Your task to perform on an android device: set an alarm Image 0: 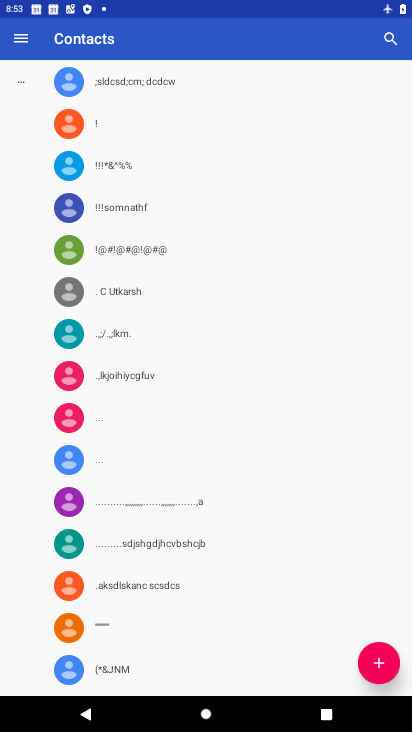
Step 0: press back button
Your task to perform on an android device: set an alarm Image 1: 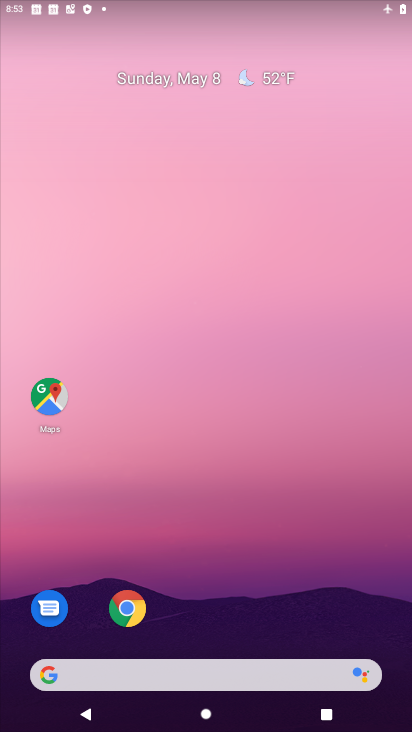
Step 1: drag from (275, 580) to (179, 2)
Your task to perform on an android device: set an alarm Image 2: 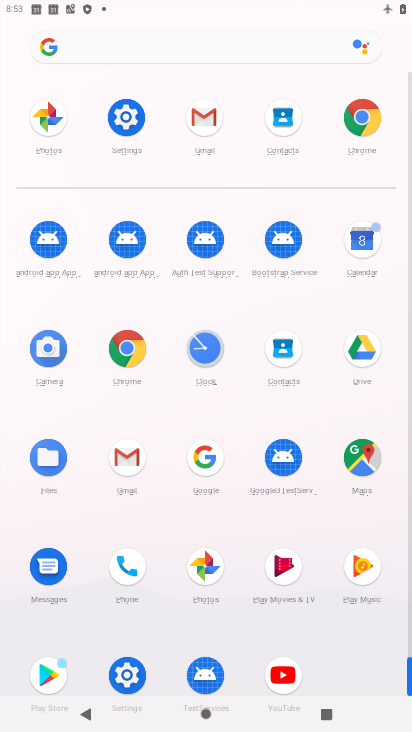
Step 2: drag from (19, 517) to (1, 205)
Your task to perform on an android device: set an alarm Image 3: 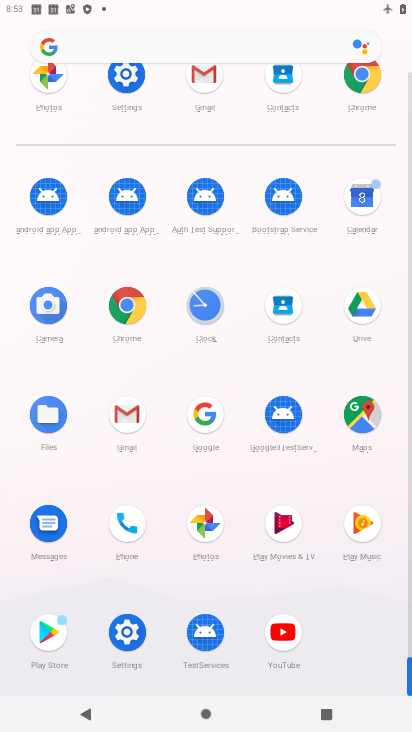
Step 3: drag from (16, 110) to (25, 147)
Your task to perform on an android device: set an alarm Image 4: 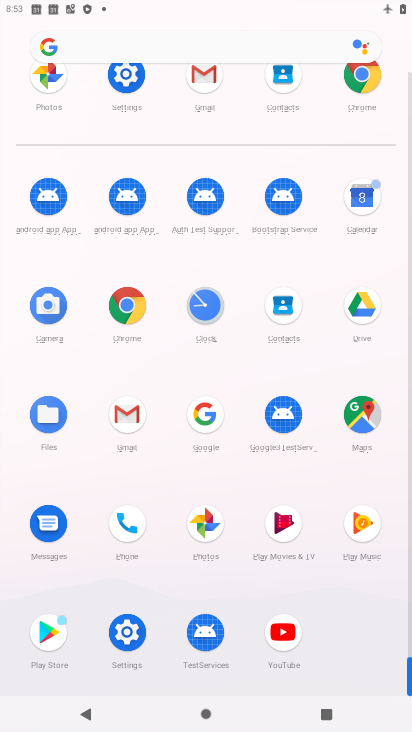
Step 4: drag from (0, 523) to (6, 246)
Your task to perform on an android device: set an alarm Image 5: 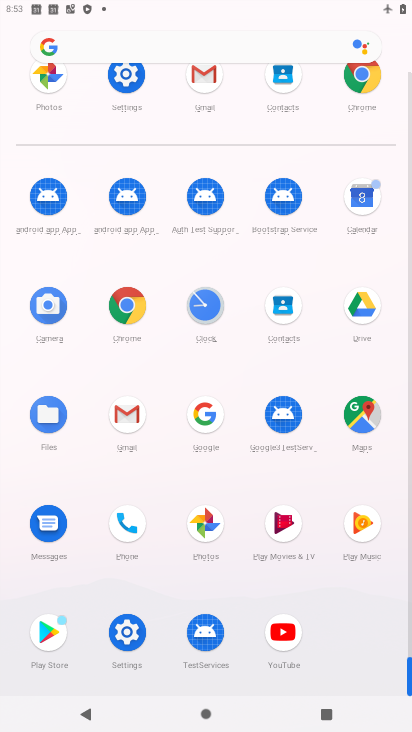
Step 5: click (206, 300)
Your task to perform on an android device: set an alarm Image 6: 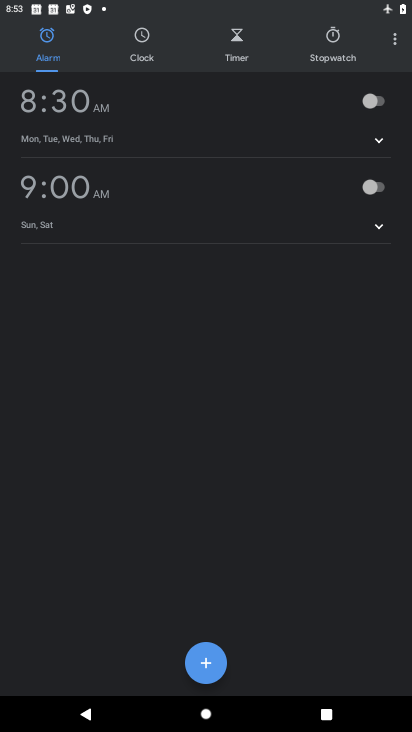
Step 6: click (205, 651)
Your task to perform on an android device: set an alarm Image 7: 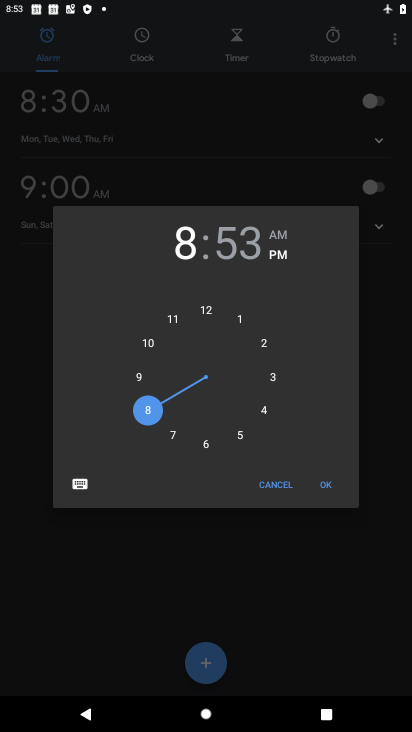
Step 7: click (146, 343)
Your task to perform on an android device: set an alarm Image 8: 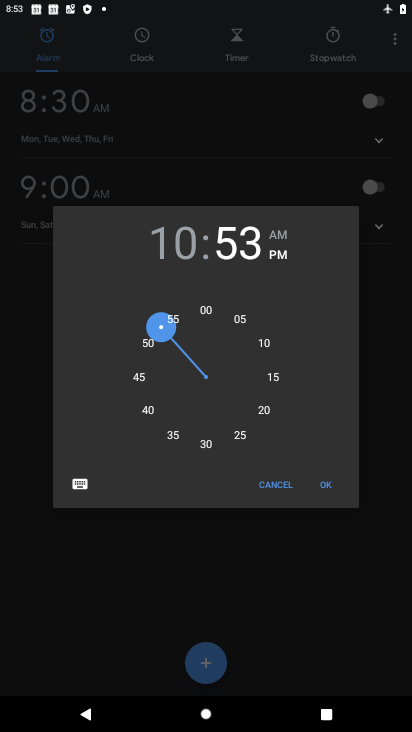
Step 8: click (321, 483)
Your task to perform on an android device: set an alarm Image 9: 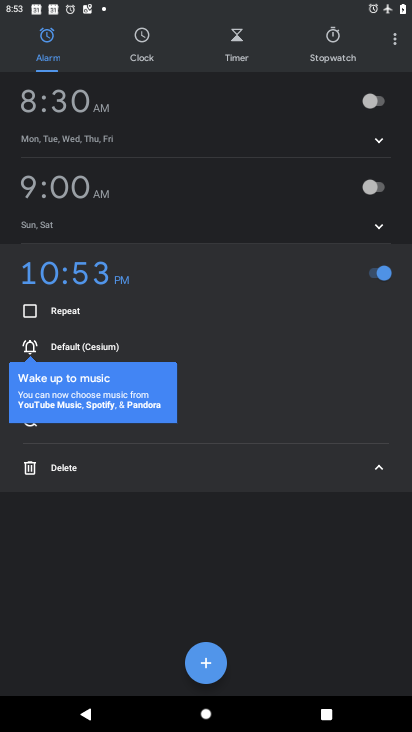
Step 9: click (187, 267)
Your task to perform on an android device: set an alarm Image 10: 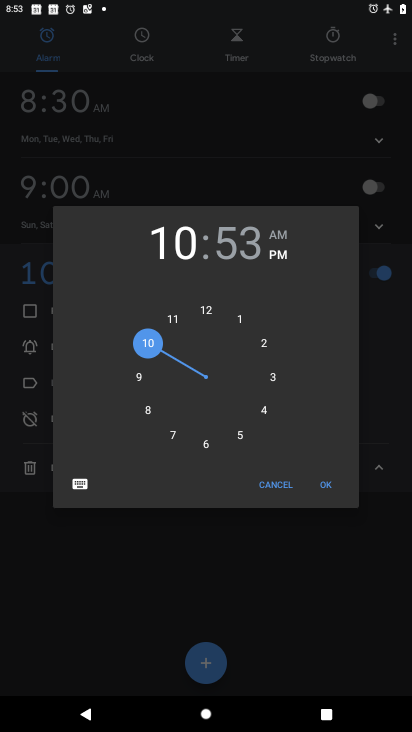
Step 10: click (168, 319)
Your task to perform on an android device: set an alarm Image 11: 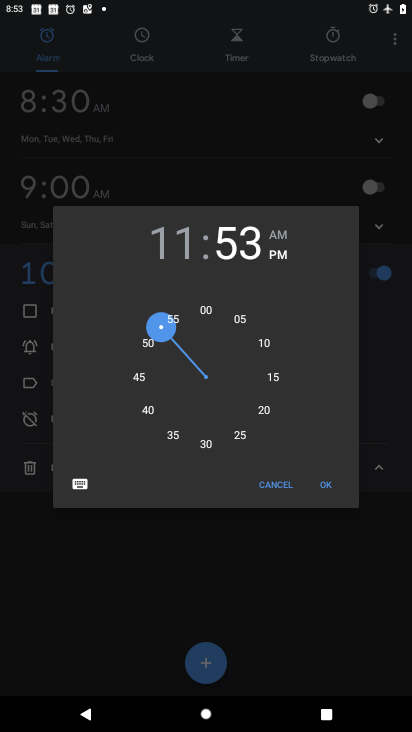
Step 11: click (321, 482)
Your task to perform on an android device: set an alarm Image 12: 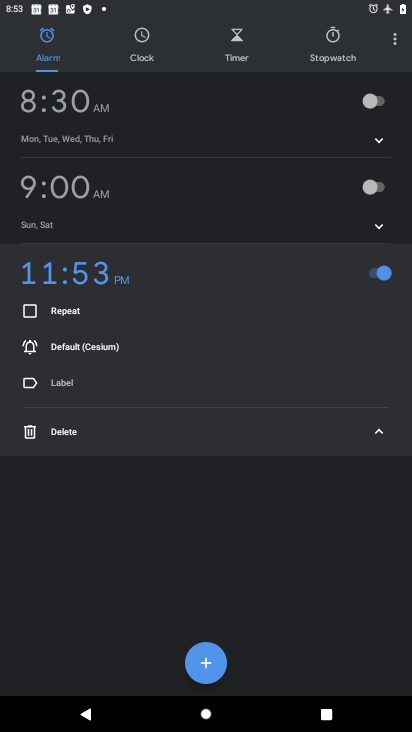
Step 12: click (70, 307)
Your task to perform on an android device: set an alarm Image 13: 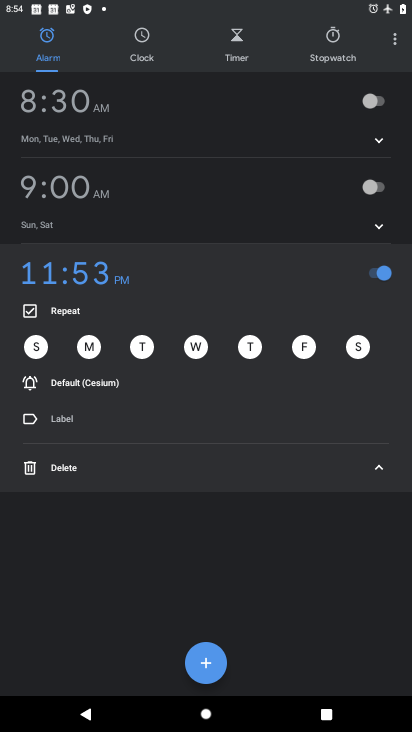
Step 13: click (94, 355)
Your task to perform on an android device: set an alarm Image 14: 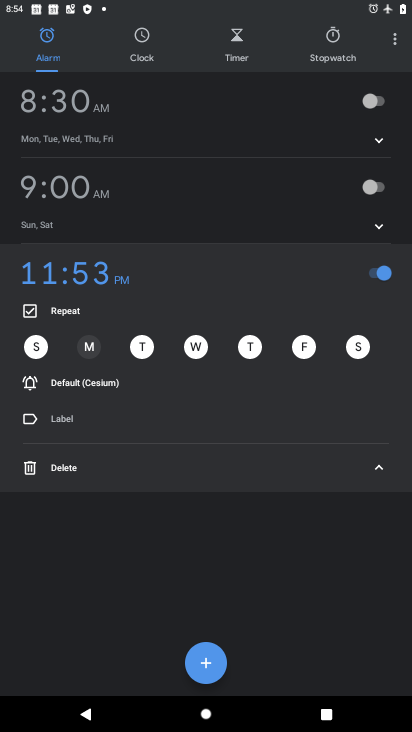
Step 14: click (247, 350)
Your task to perform on an android device: set an alarm Image 15: 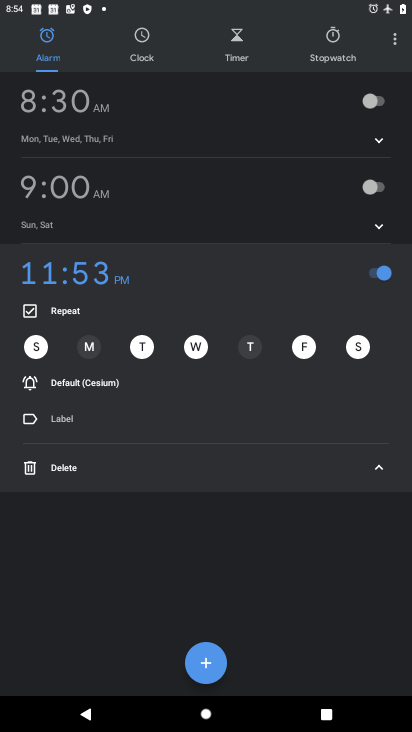
Step 15: task complete